Your task to perform on an android device: turn on bluetooth scan Image 0: 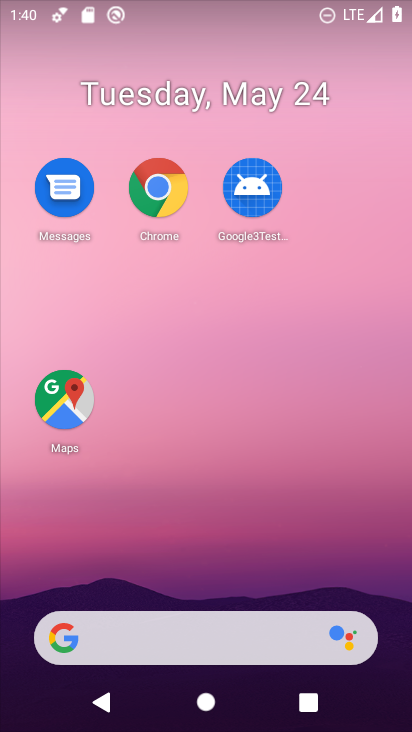
Step 0: drag from (271, 387) to (292, 0)
Your task to perform on an android device: turn on bluetooth scan Image 1: 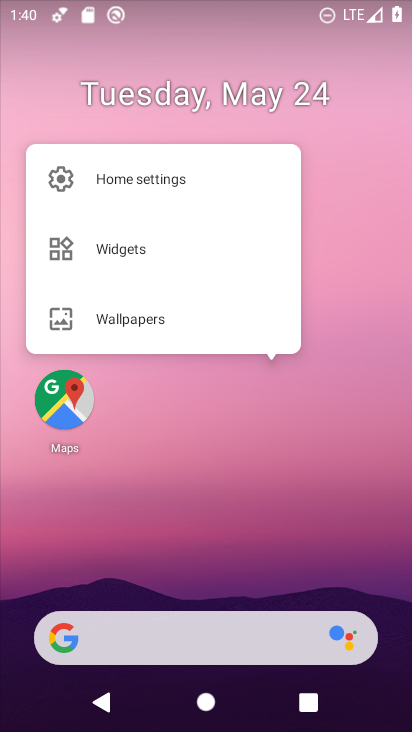
Step 1: click (254, 543)
Your task to perform on an android device: turn on bluetooth scan Image 2: 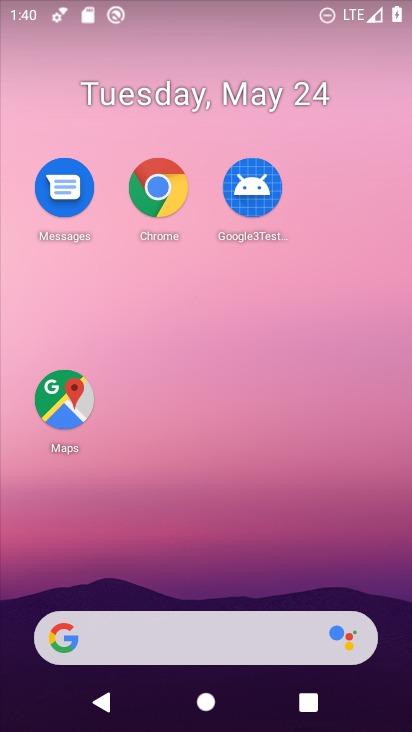
Step 2: drag from (266, 546) to (270, 2)
Your task to perform on an android device: turn on bluetooth scan Image 3: 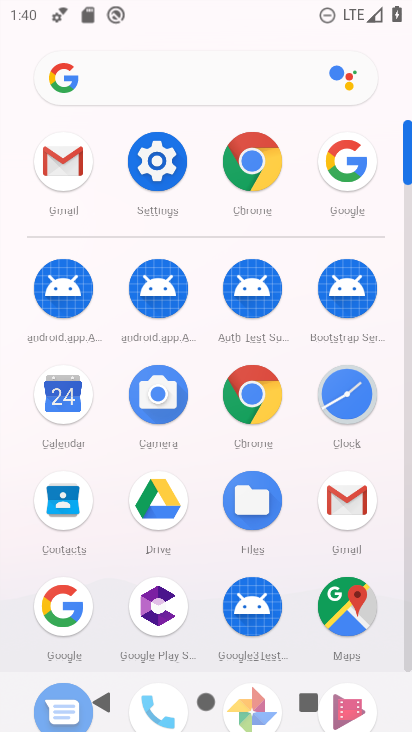
Step 3: press home button
Your task to perform on an android device: turn on bluetooth scan Image 4: 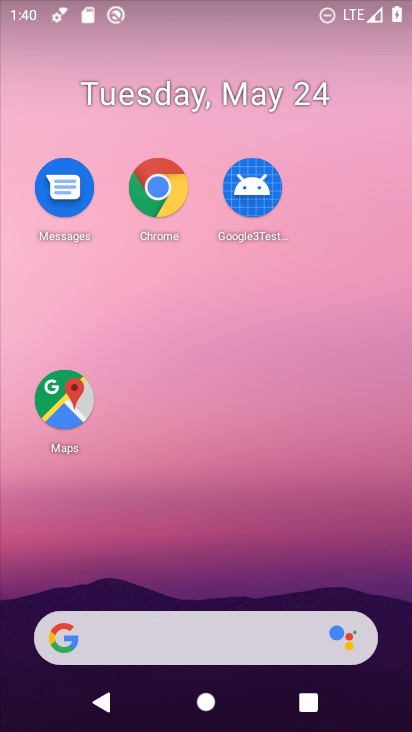
Step 4: drag from (264, 597) to (165, 49)
Your task to perform on an android device: turn on bluetooth scan Image 5: 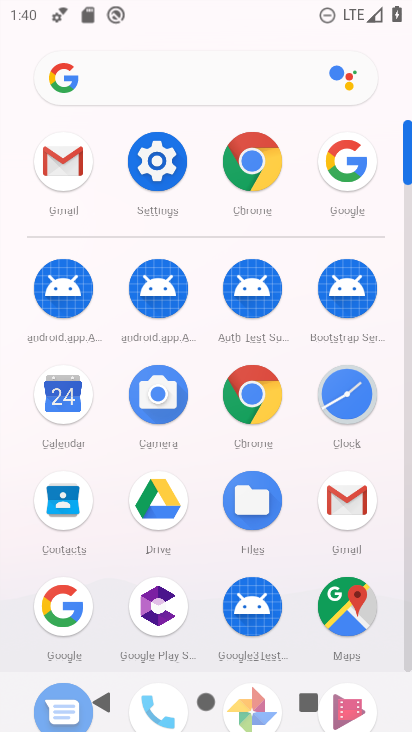
Step 5: click (150, 167)
Your task to perform on an android device: turn on bluetooth scan Image 6: 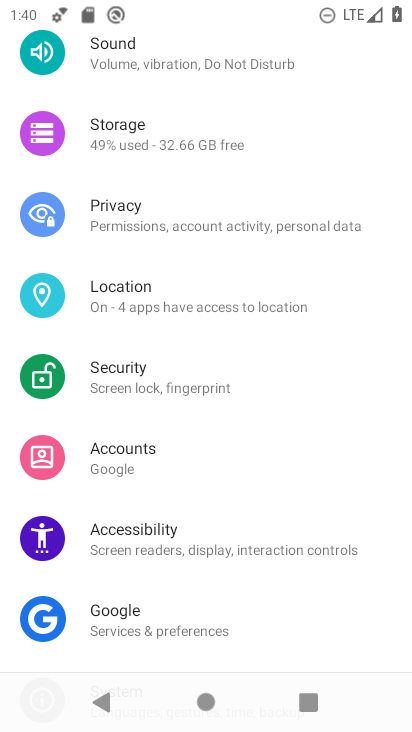
Step 6: drag from (170, 186) to (227, 609)
Your task to perform on an android device: turn on bluetooth scan Image 7: 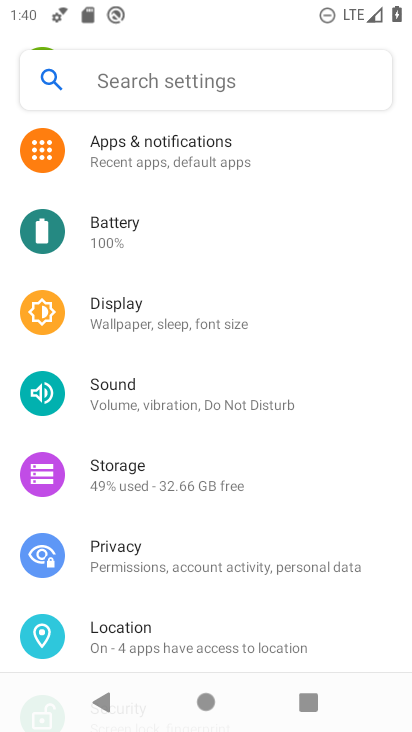
Step 7: drag from (186, 206) to (172, 566)
Your task to perform on an android device: turn on bluetooth scan Image 8: 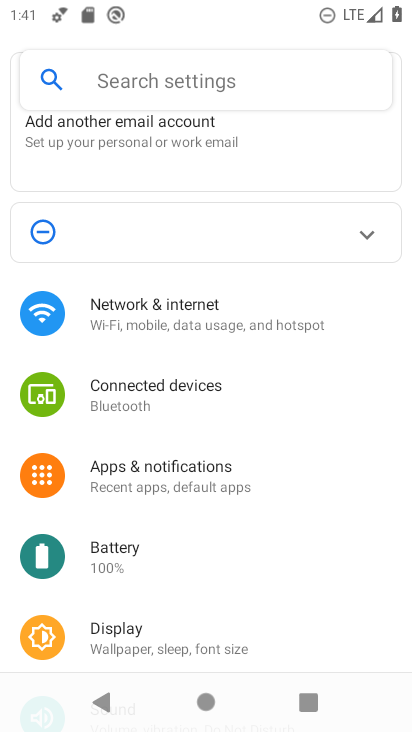
Step 8: drag from (177, 614) to (192, 396)
Your task to perform on an android device: turn on bluetooth scan Image 9: 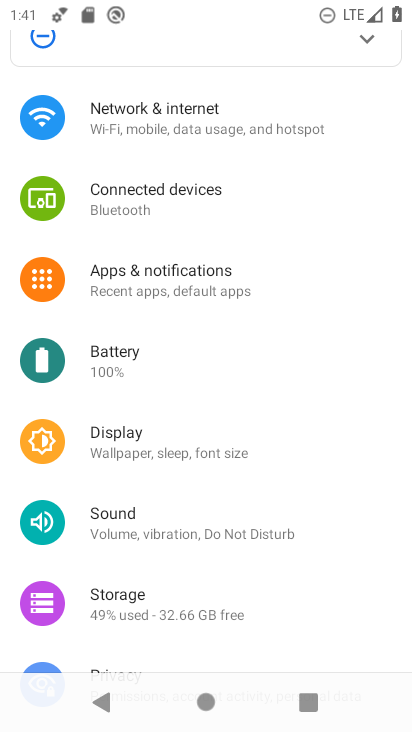
Step 9: drag from (113, 600) to (166, 236)
Your task to perform on an android device: turn on bluetooth scan Image 10: 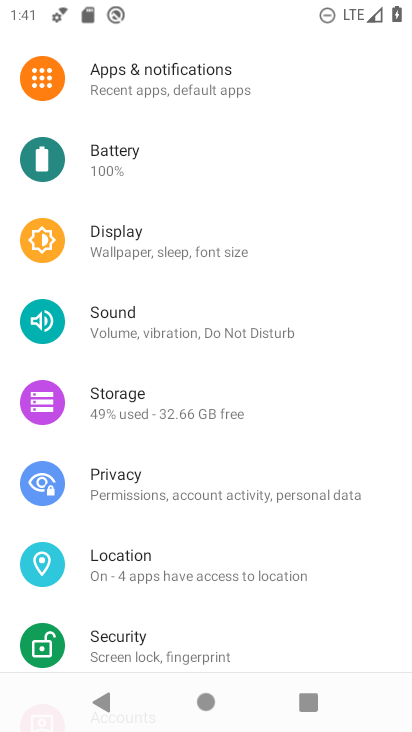
Step 10: click (145, 584)
Your task to perform on an android device: turn on bluetooth scan Image 11: 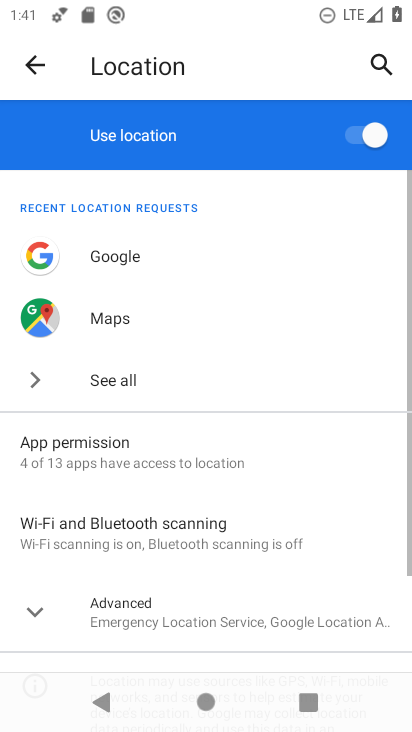
Step 11: drag from (185, 362) to (197, 156)
Your task to perform on an android device: turn on bluetooth scan Image 12: 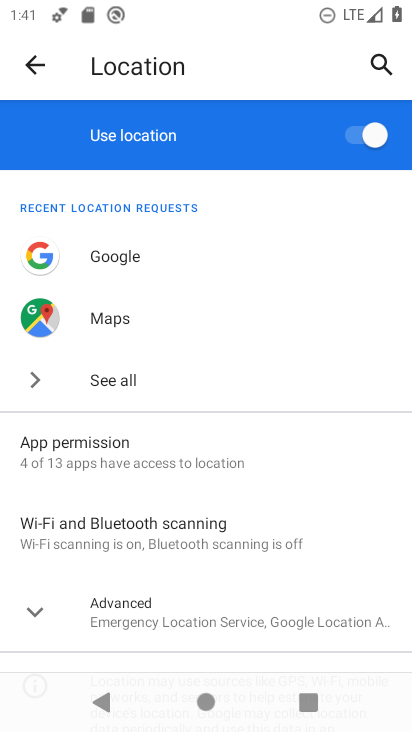
Step 12: click (136, 638)
Your task to perform on an android device: turn on bluetooth scan Image 13: 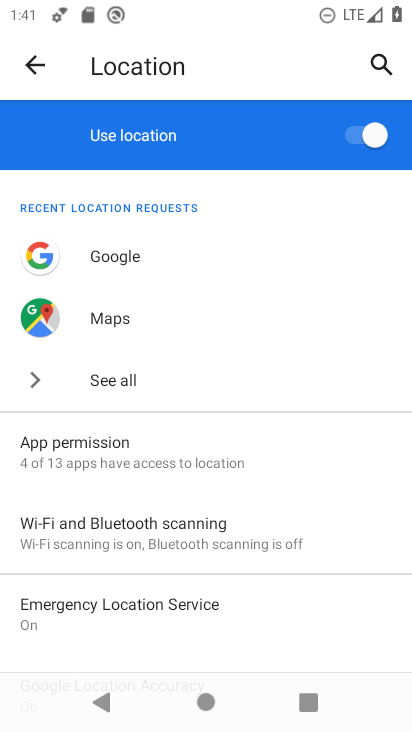
Step 13: drag from (104, 663) to (212, 292)
Your task to perform on an android device: turn on bluetooth scan Image 14: 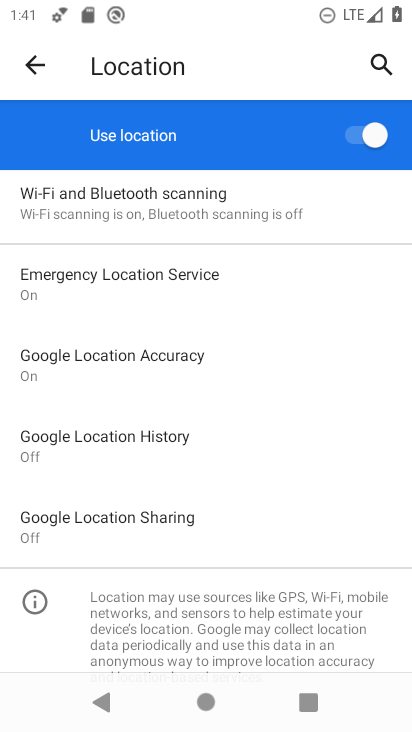
Step 14: click (236, 214)
Your task to perform on an android device: turn on bluetooth scan Image 15: 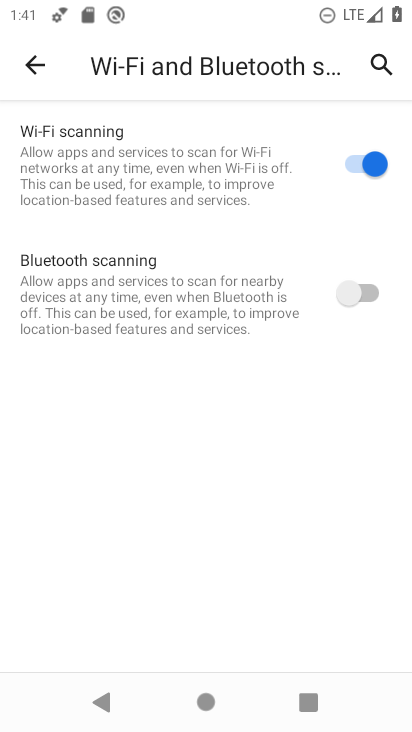
Step 15: click (385, 298)
Your task to perform on an android device: turn on bluetooth scan Image 16: 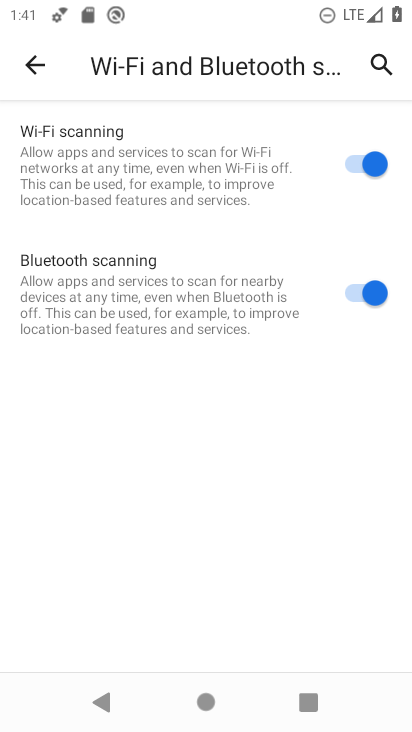
Step 16: task complete